Your task to perform on an android device: turn on the 12-hour format for clock Image 0: 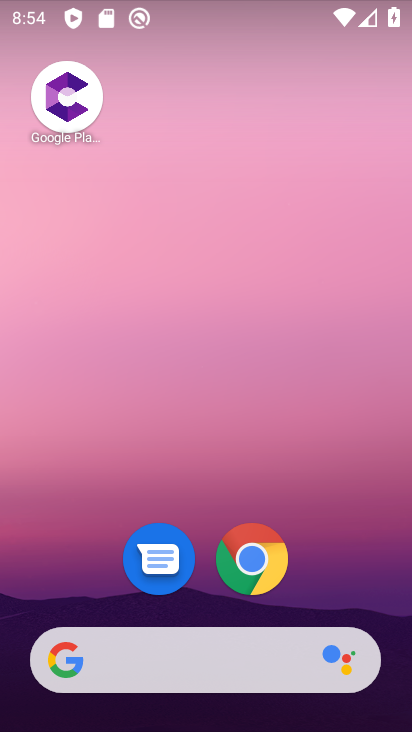
Step 0: drag from (198, 654) to (258, 26)
Your task to perform on an android device: turn on the 12-hour format for clock Image 1: 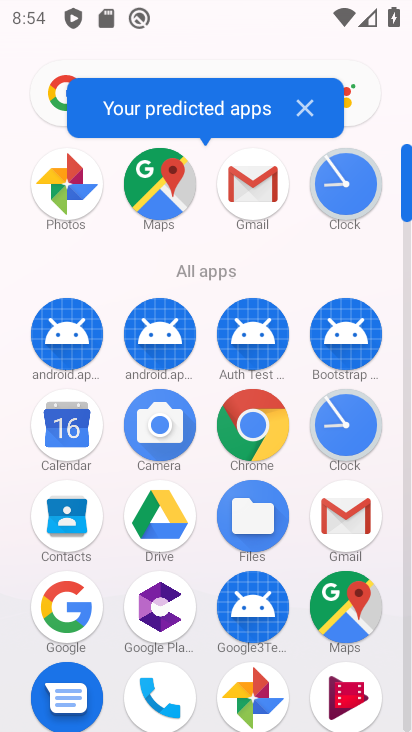
Step 1: click (345, 424)
Your task to perform on an android device: turn on the 12-hour format for clock Image 2: 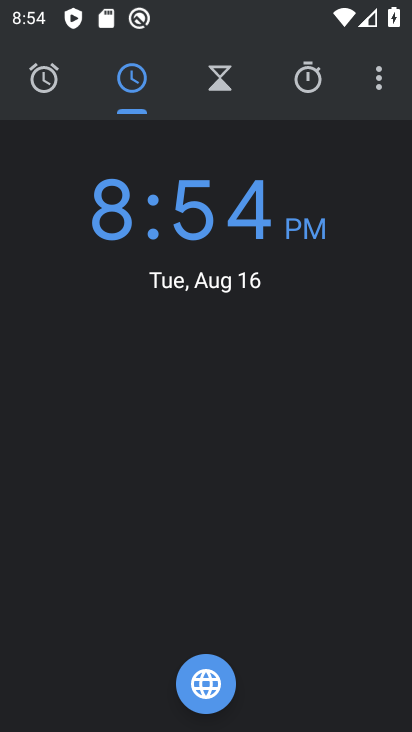
Step 2: click (379, 81)
Your task to perform on an android device: turn on the 12-hour format for clock Image 3: 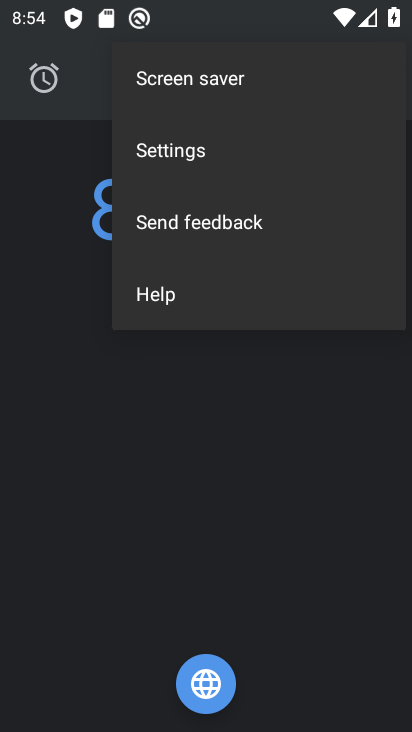
Step 3: click (200, 149)
Your task to perform on an android device: turn on the 12-hour format for clock Image 4: 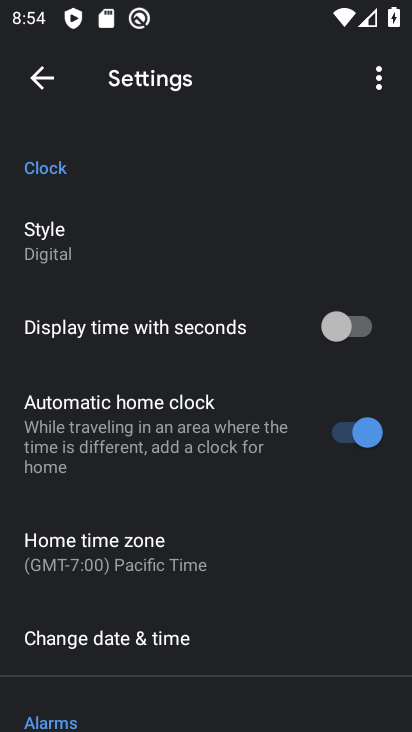
Step 4: click (120, 640)
Your task to perform on an android device: turn on the 12-hour format for clock Image 5: 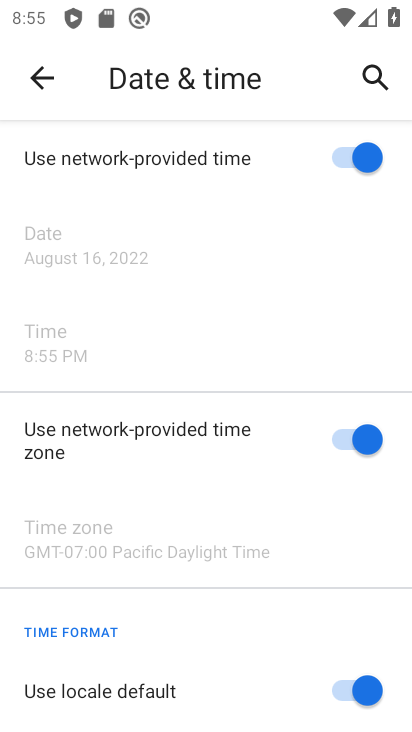
Step 5: task complete